Your task to perform on an android device: check data usage Image 0: 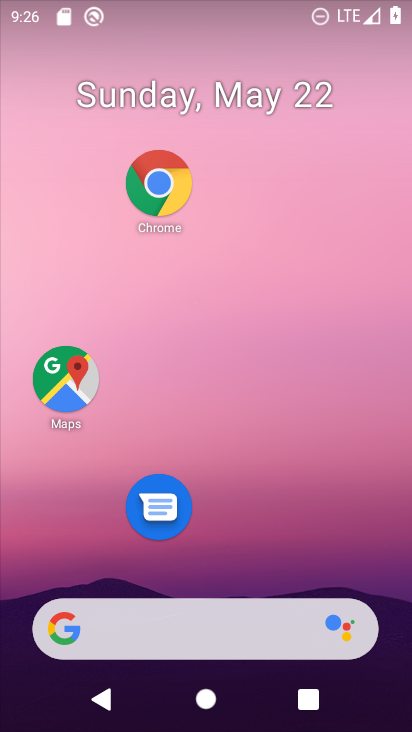
Step 0: drag from (150, 693) to (212, 94)
Your task to perform on an android device: check data usage Image 1: 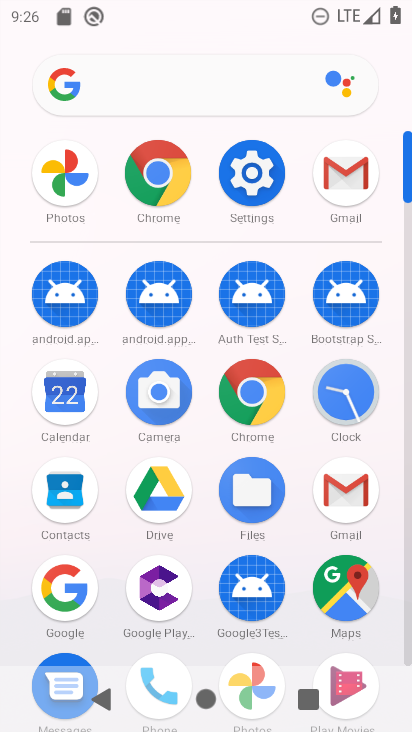
Step 1: click (253, 164)
Your task to perform on an android device: check data usage Image 2: 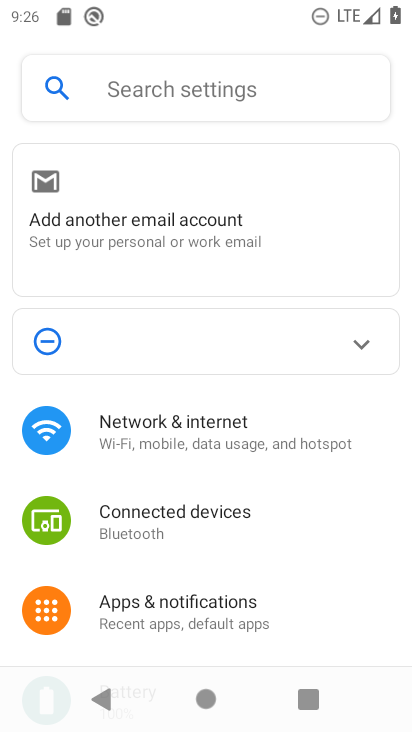
Step 2: drag from (240, 606) to (197, 57)
Your task to perform on an android device: check data usage Image 3: 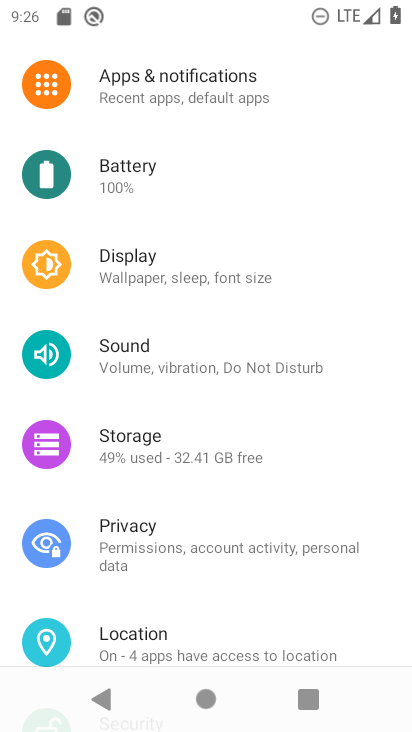
Step 3: drag from (295, 197) to (232, 629)
Your task to perform on an android device: check data usage Image 4: 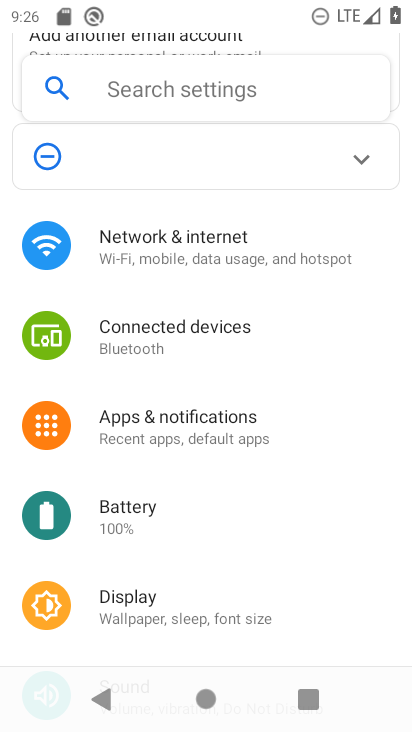
Step 4: click (278, 246)
Your task to perform on an android device: check data usage Image 5: 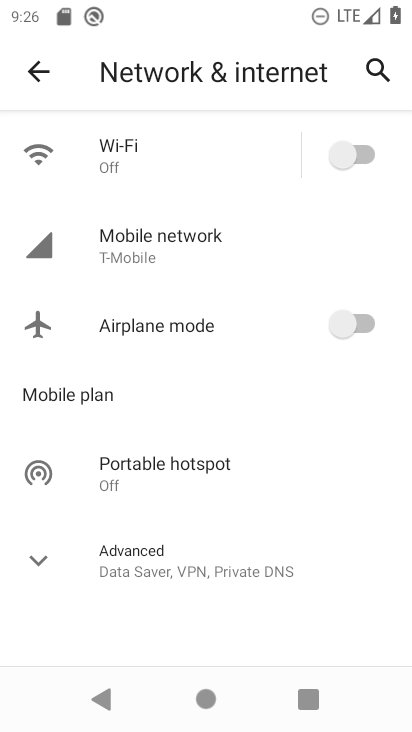
Step 5: click (145, 260)
Your task to perform on an android device: check data usage Image 6: 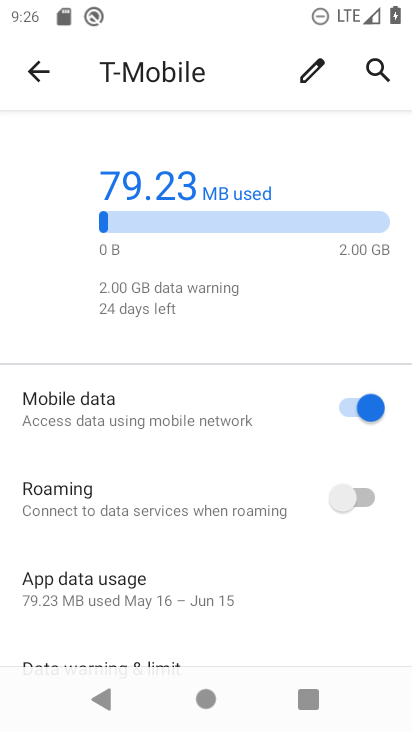
Step 6: task complete